Your task to perform on an android device: star an email in the gmail app Image 0: 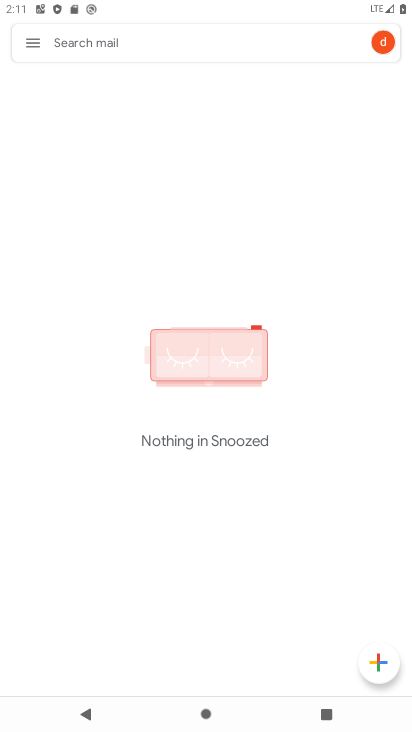
Step 0: press home button
Your task to perform on an android device: star an email in the gmail app Image 1: 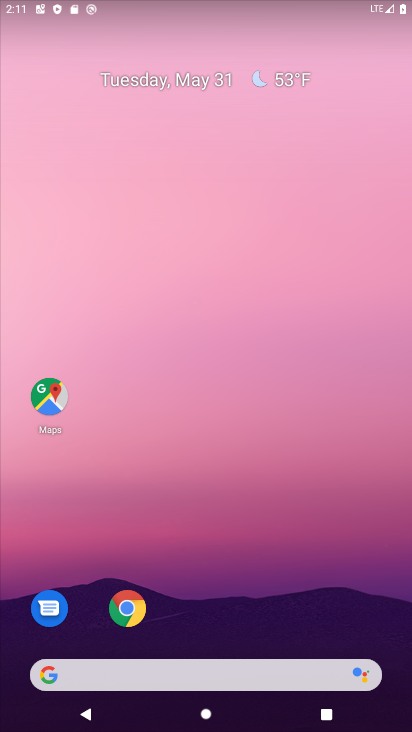
Step 1: drag from (263, 566) to (284, 105)
Your task to perform on an android device: star an email in the gmail app Image 2: 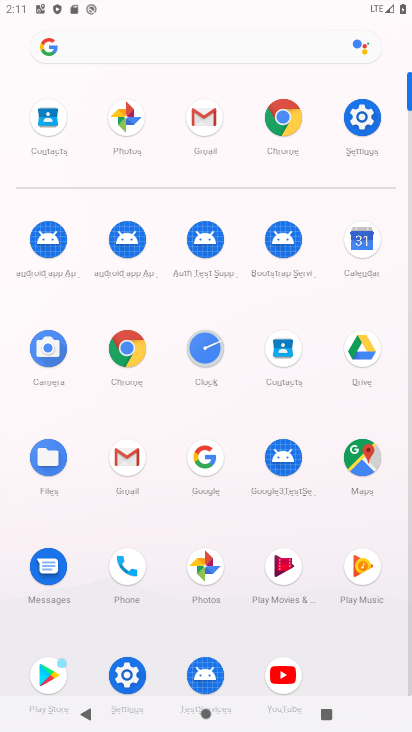
Step 2: click (200, 112)
Your task to perform on an android device: star an email in the gmail app Image 3: 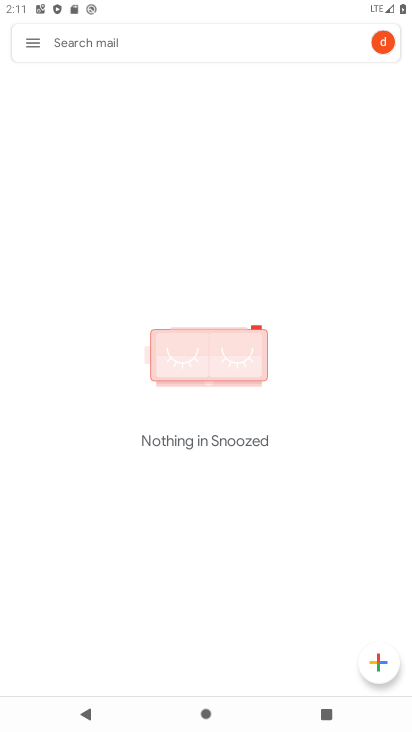
Step 3: click (40, 40)
Your task to perform on an android device: star an email in the gmail app Image 4: 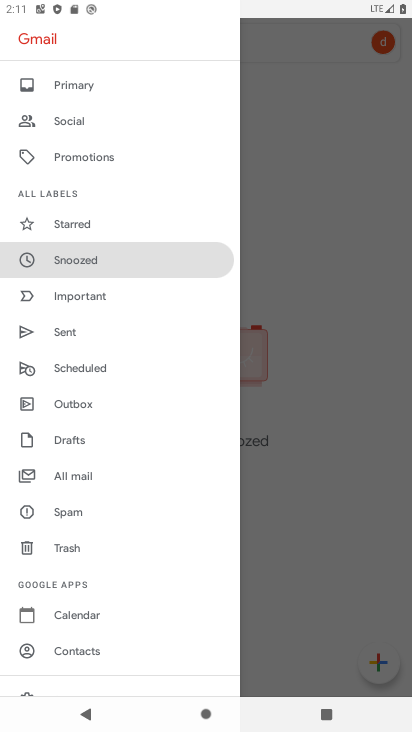
Step 4: click (85, 226)
Your task to perform on an android device: star an email in the gmail app Image 5: 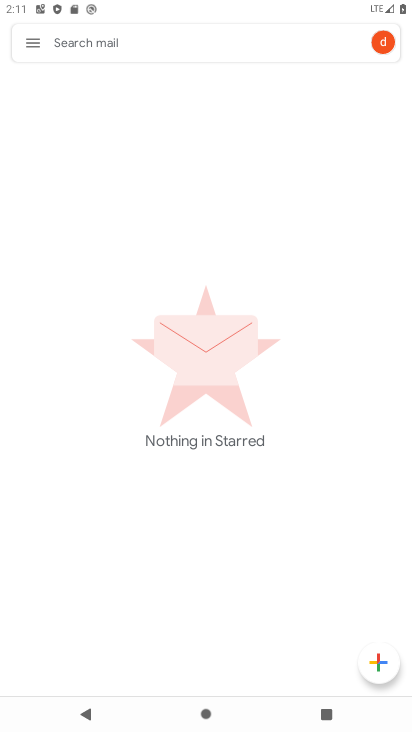
Step 5: task complete